Your task to perform on an android device: Search for vegetarian restaurants on Maps Image 0: 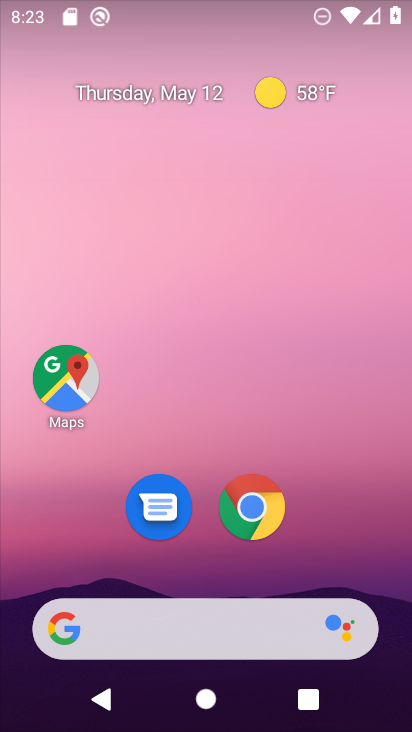
Step 0: click (81, 396)
Your task to perform on an android device: Search for vegetarian restaurants on Maps Image 1: 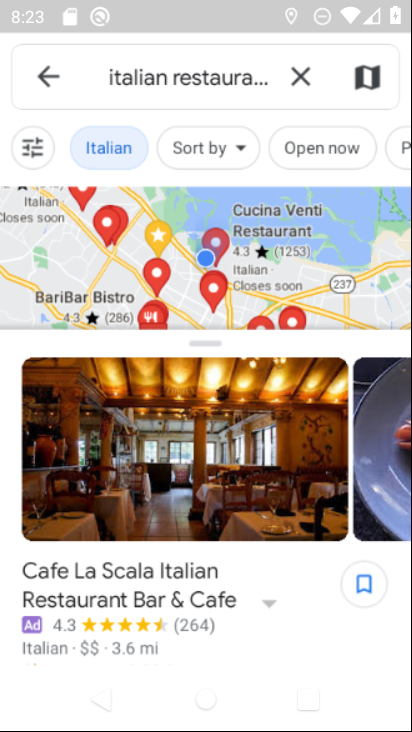
Step 1: click (311, 64)
Your task to perform on an android device: Search for vegetarian restaurants on Maps Image 2: 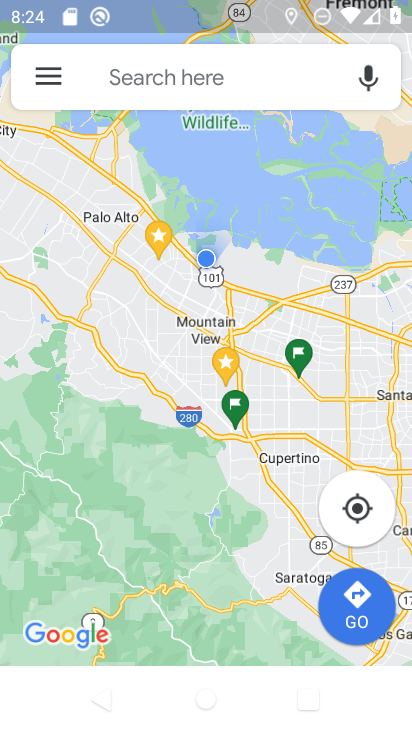
Step 2: click (149, 89)
Your task to perform on an android device: Search for vegetarian restaurants on Maps Image 3: 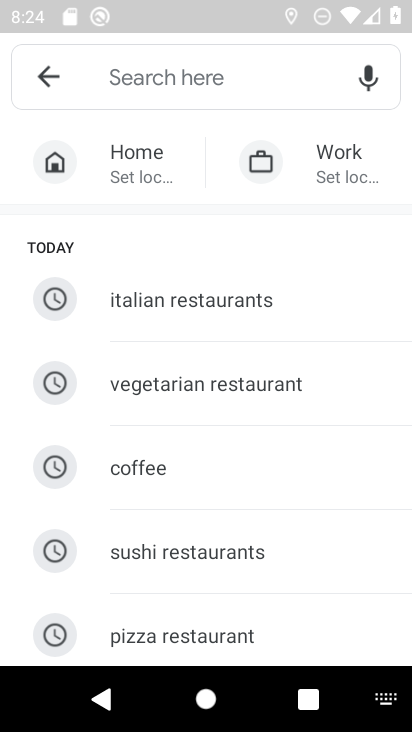
Step 3: type " vegetarian restaurants"
Your task to perform on an android device: Search for vegetarian restaurants on Maps Image 4: 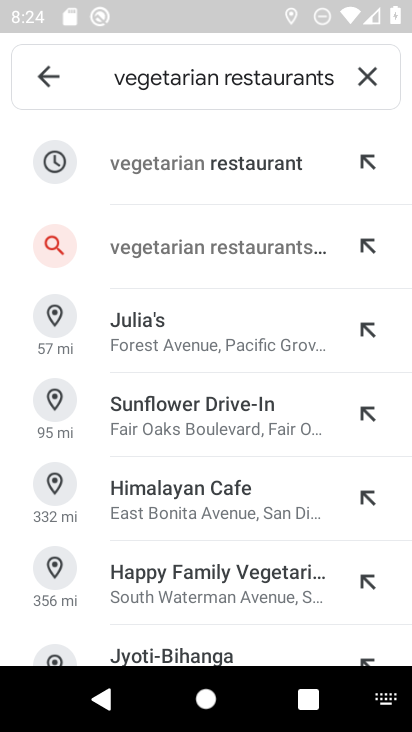
Step 4: click (199, 171)
Your task to perform on an android device: Search for vegetarian restaurants on Maps Image 5: 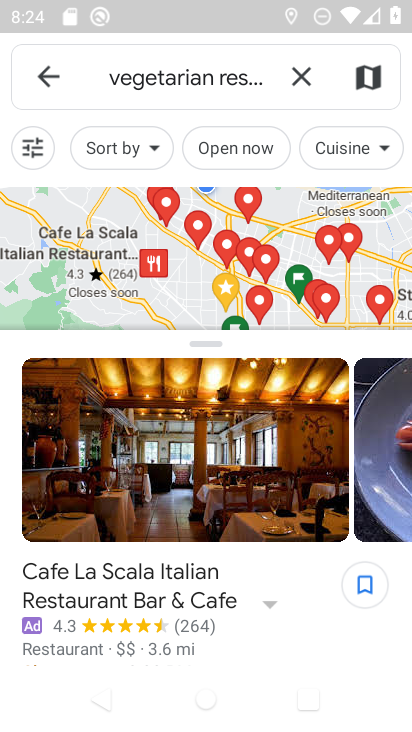
Step 5: task complete